Your task to perform on an android device: Search for the best rated kitchen reno kits on Lowes.com Image 0: 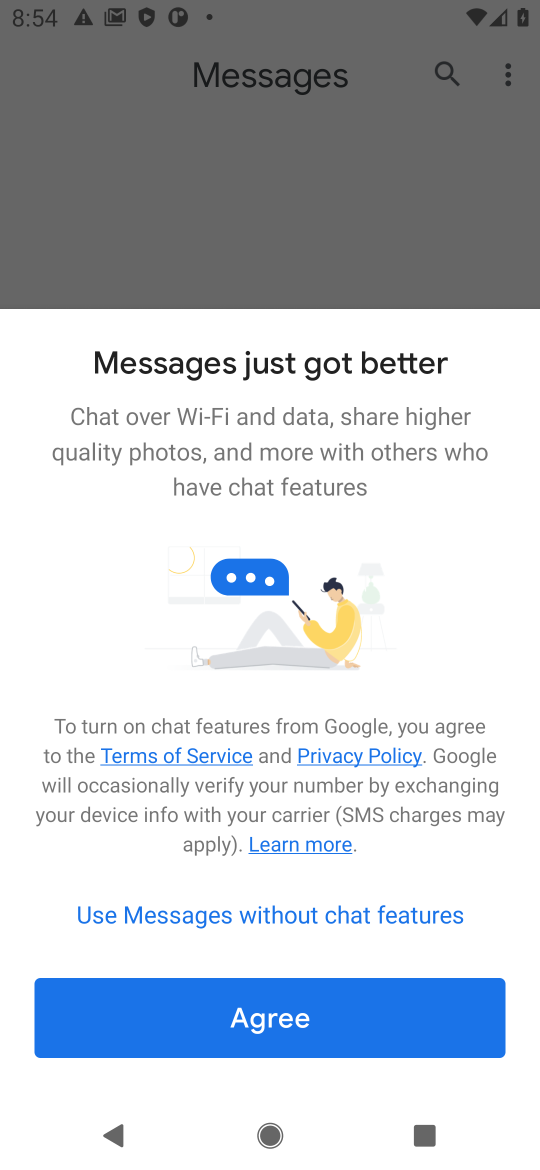
Step 0: press home button
Your task to perform on an android device: Search for the best rated kitchen reno kits on Lowes.com Image 1: 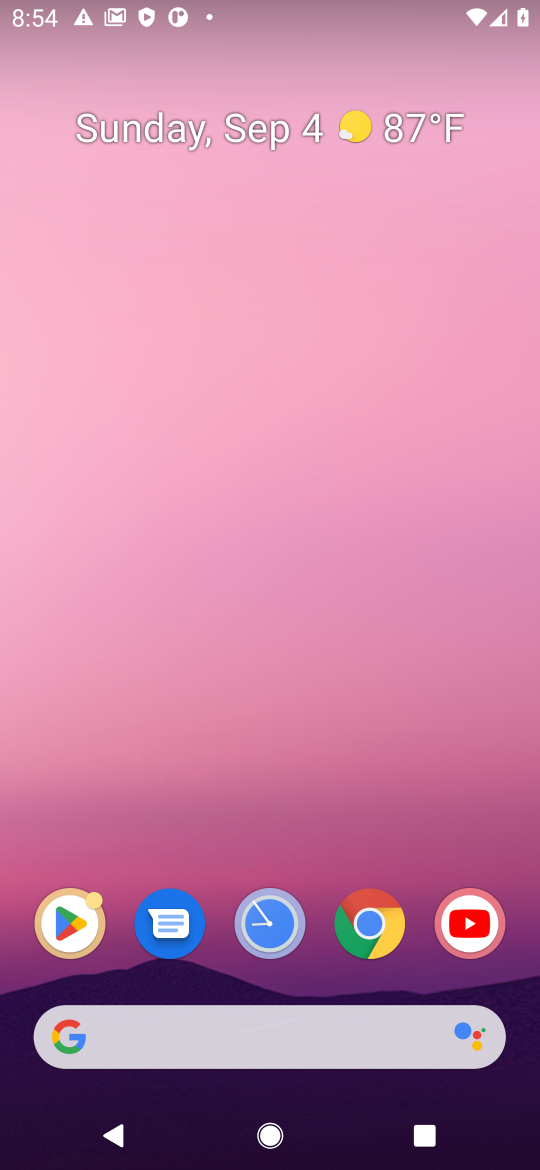
Step 1: press home button
Your task to perform on an android device: Search for the best rated kitchen reno kits on Lowes.com Image 2: 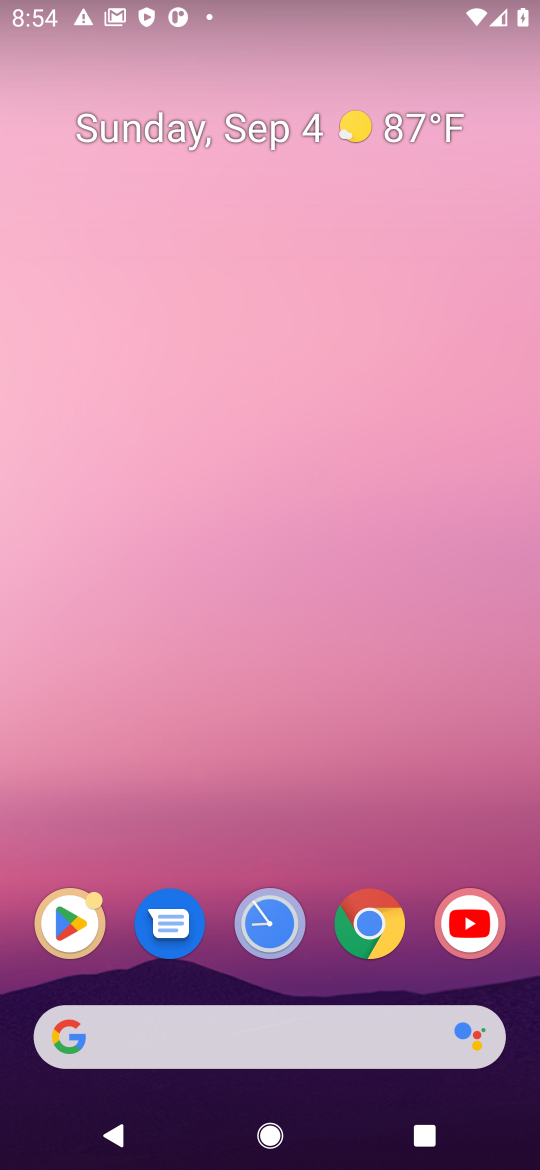
Step 2: click (389, 1029)
Your task to perform on an android device: Search for the best rated kitchen reno kits on Lowes.com Image 3: 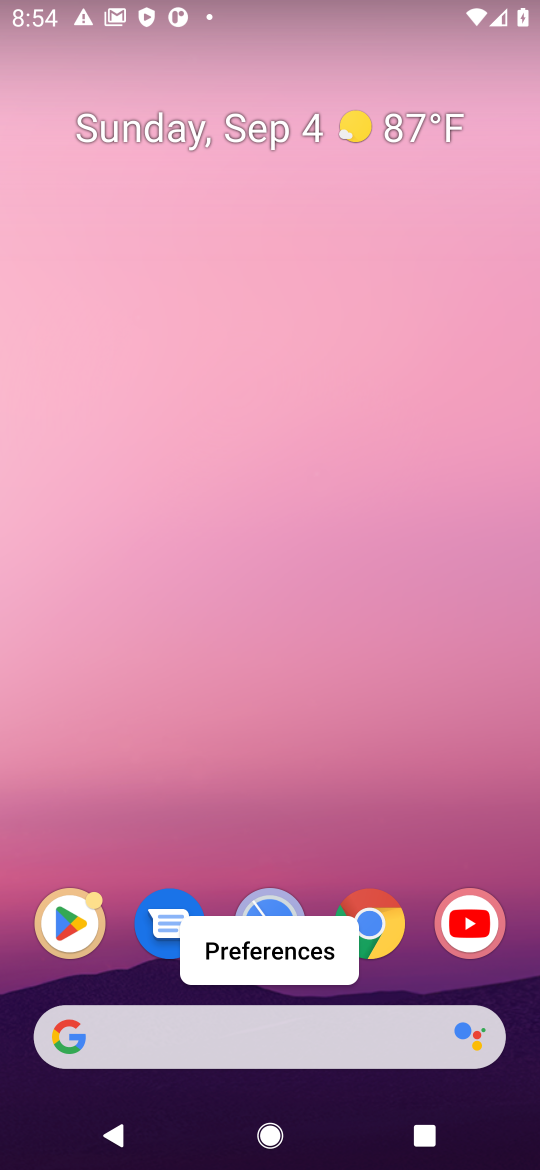
Step 3: click (382, 1019)
Your task to perform on an android device: Search for the best rated kitchen reno kits on Lowes.com Image 4: 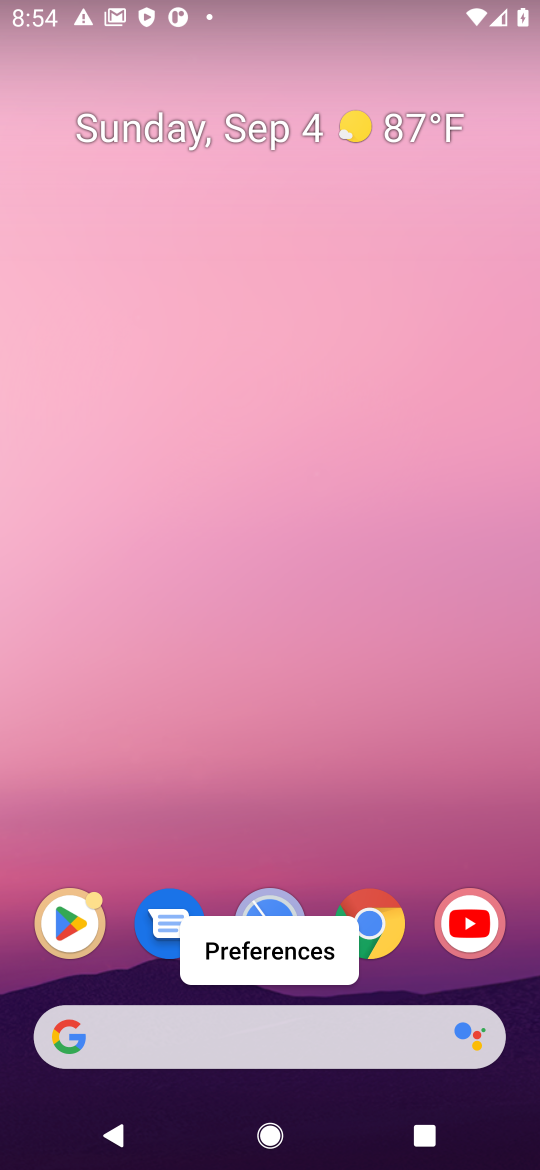
Step 4: click (375, 1036)
Your task to perform on an android device: Search for the best rated kitchen reno kits on Lowes.com Image 5: 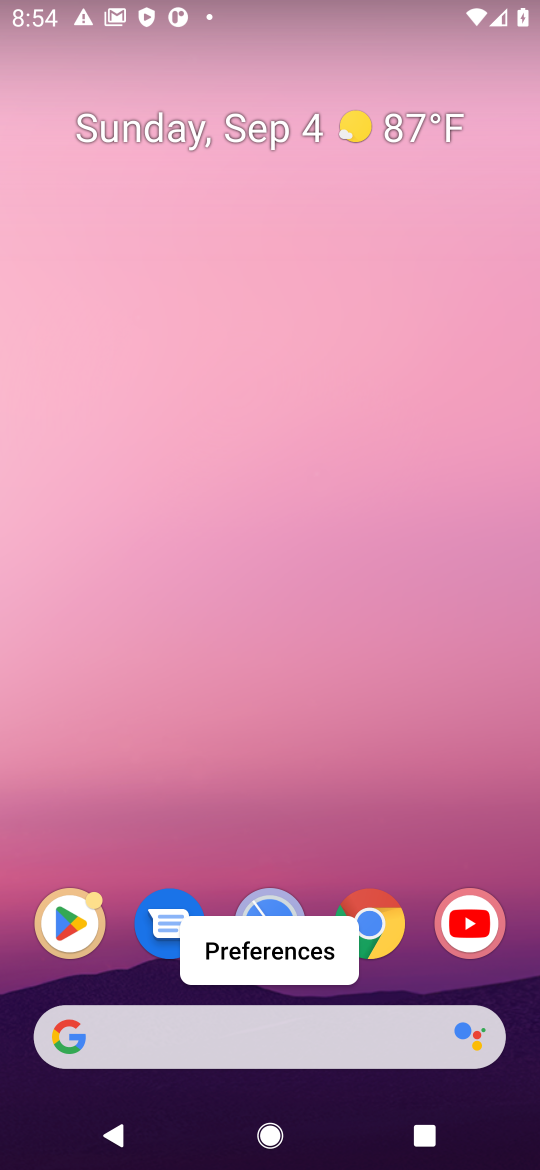
Step 5: click (375, 1036)
Your task to perform on an android device: Search for the best rated kitchen reno kits on Lowes.com Image 6: 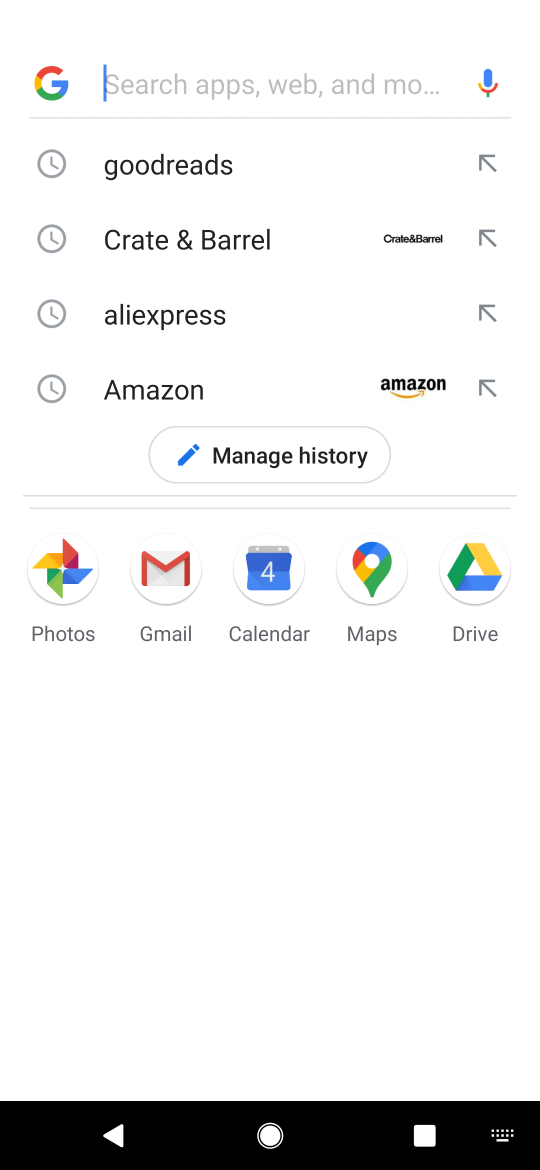
Step 6: press enter
Your task to perform on an android device: Search for the best rated kitchen reno kits on Lowes.com Image 7: 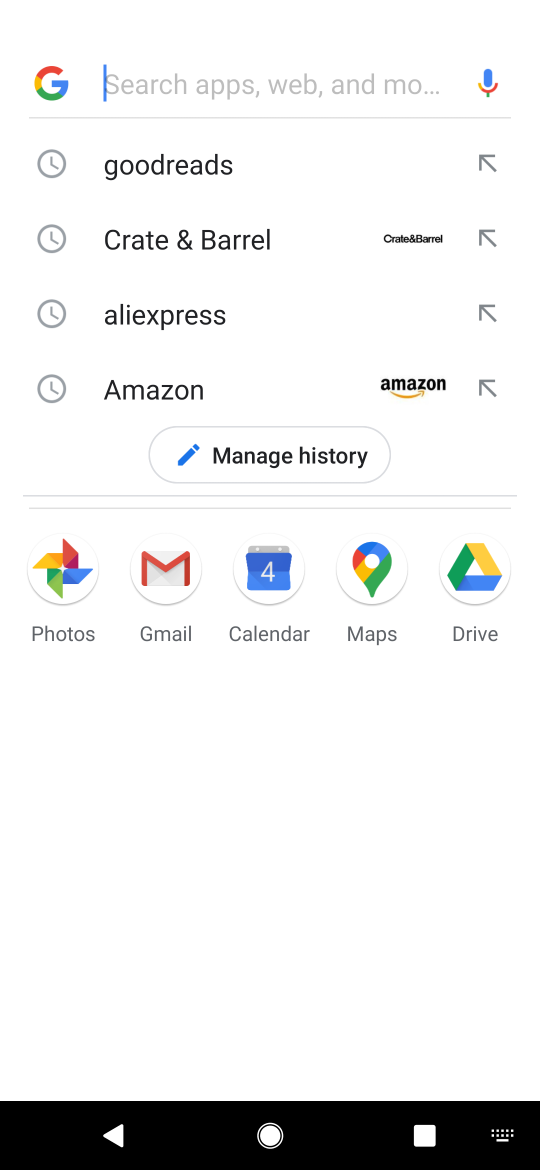
Step 7: type "lowes.com"
Your task to perform on an android device: Search for the best rated kitchen reno kits on Lowes.com Image 8: 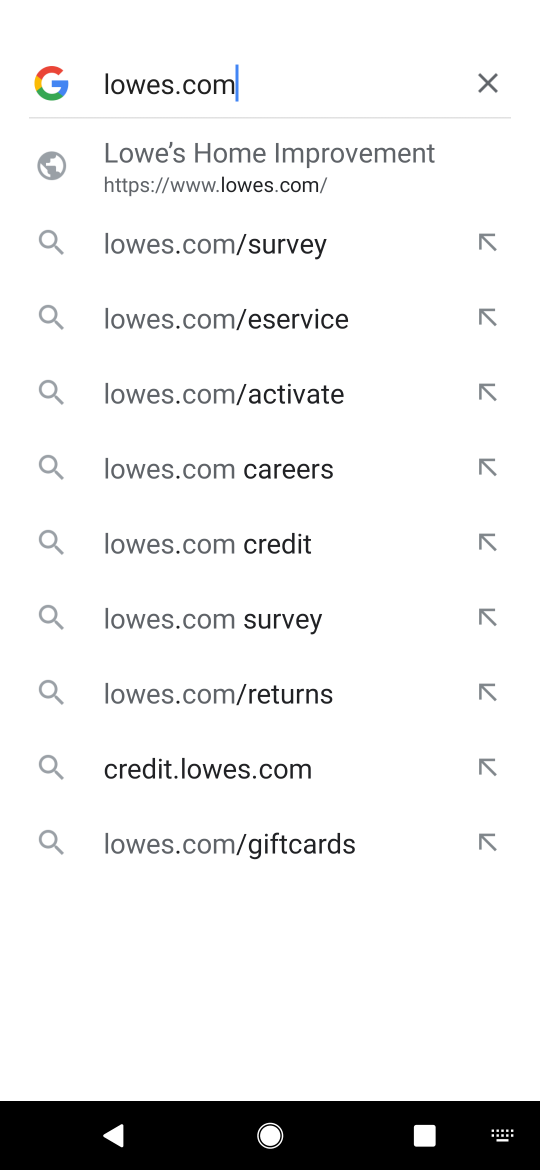
Step 8: click (208, 162)
Your task to perform on an android device: Search for the best rated kitchen reno kits on Lowes.com Image 9: 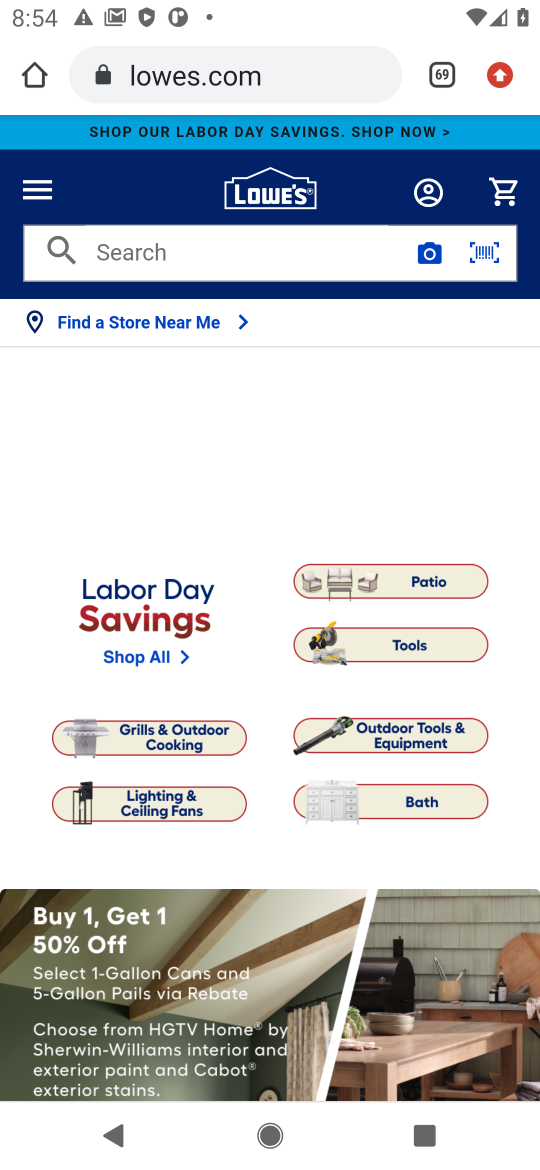
Step 9: click (171, 243)
Your task to perform on an android device: Search for the best rated kitchen reno kits on Lowes.com Image 10: 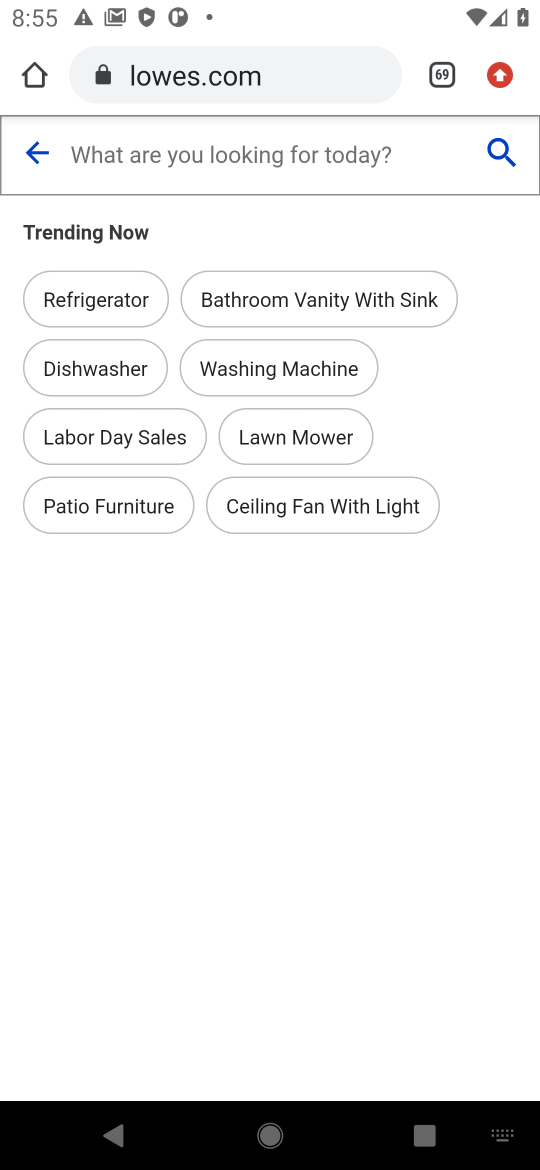
Step 10: type "best rated kitchen reno kits"
Your task to perform on an android device: Search for the best rated kitchen reno kits on Lowes.com Image 11: 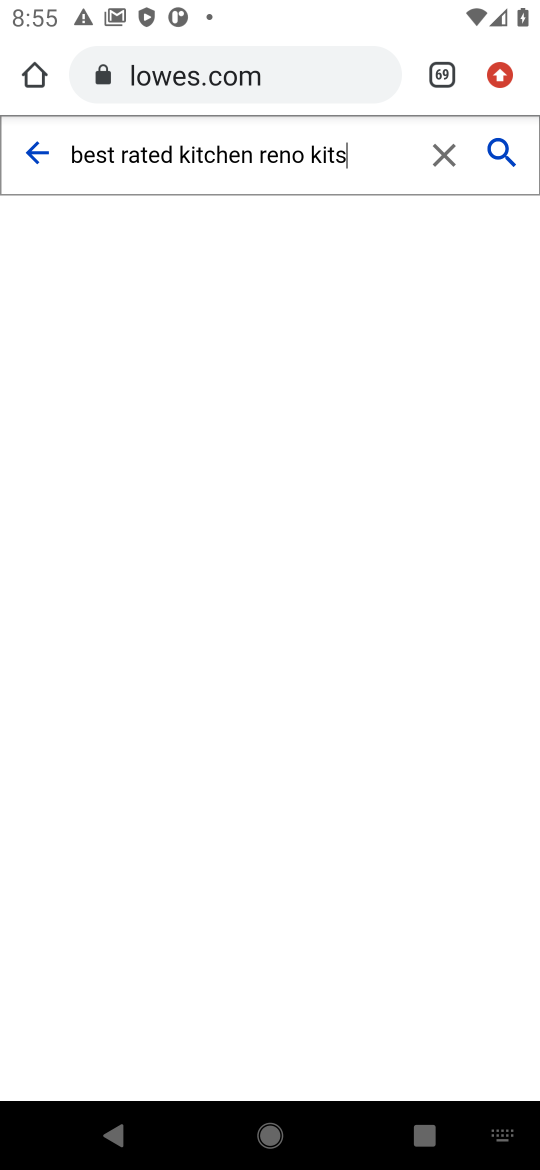
Step 11: click (509, 147)
Your task to perform on an android device: Search for the best rated kitchen reno kits on Lowes.com Image 12: 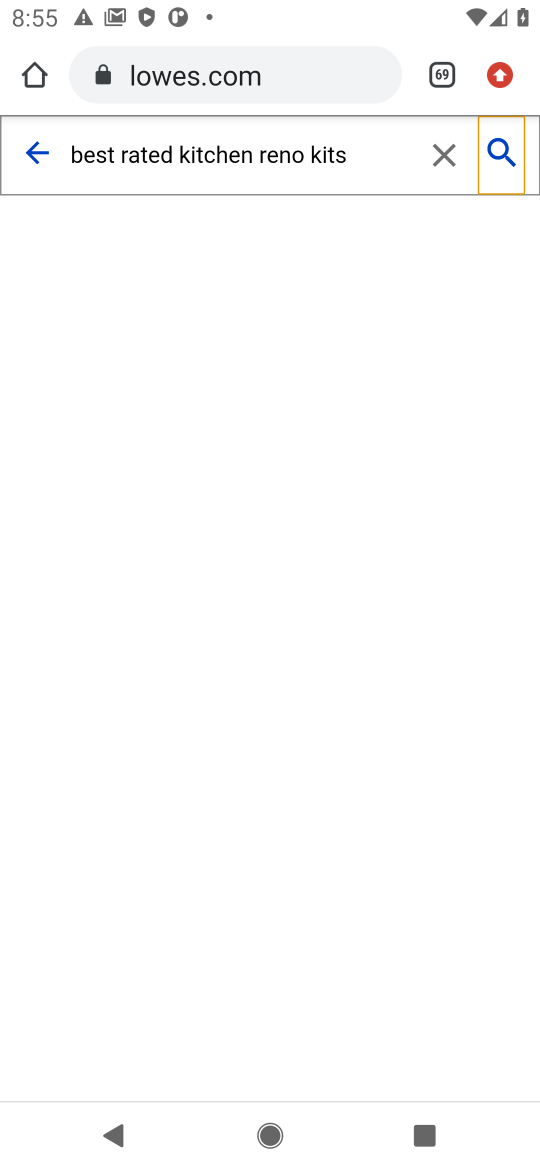
Step 12: click (499, 152)
Your task to perform on an android device: Search for the best rated kitchen reno kits on Lowes.com Image 13: 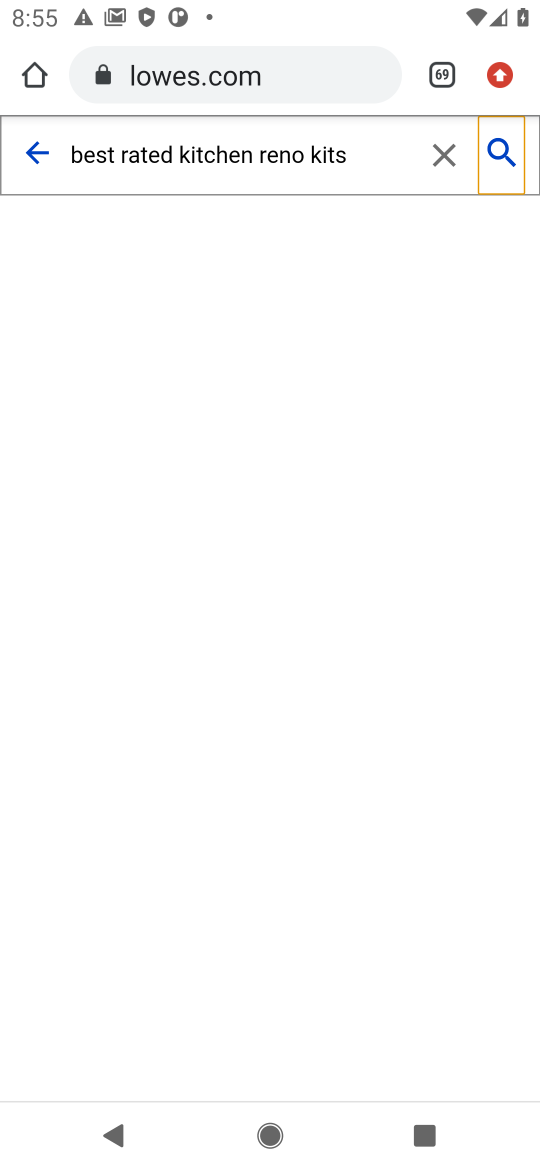
Step 13: click (494, 149)
Your task to perform on an android device: Search for the best rated kitchen reno kits on Lowes.com Image 14: 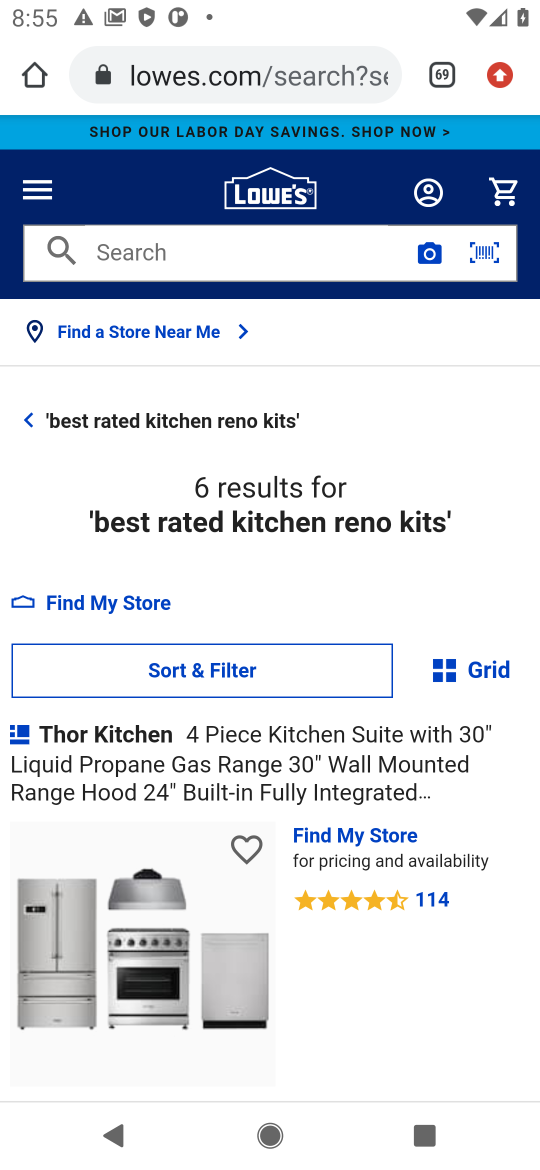
Step 14: task complete